Your task to perform on an android device: Open settings Image 0: 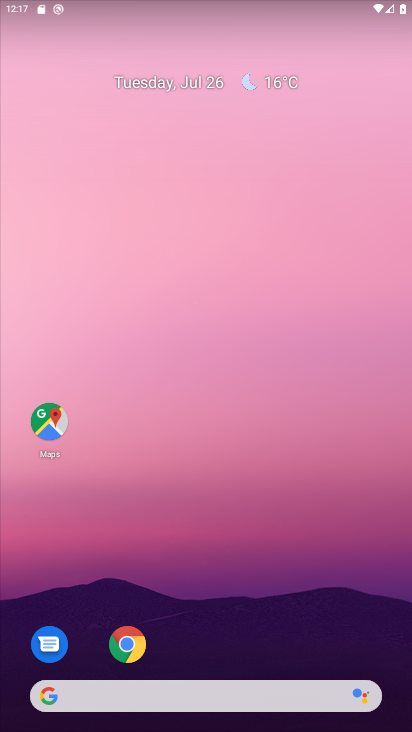
Step 0: drag from (292, 591) to (180, 12)
Your task to perform on an android device: Open settings Image 1: 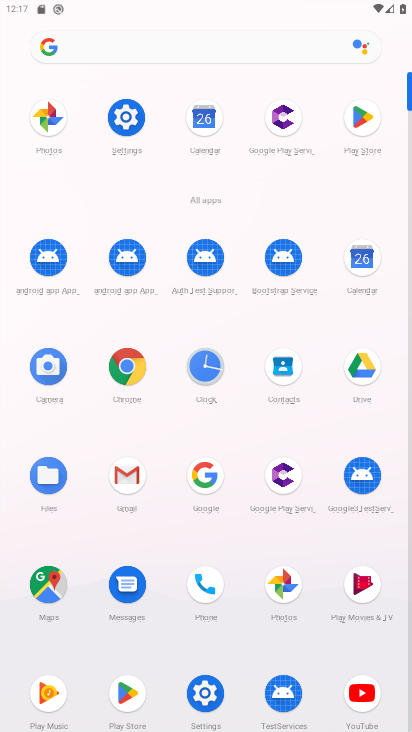
Step 1: click (127, 110)
Your task to perform on an android device: Open settings Image 2: 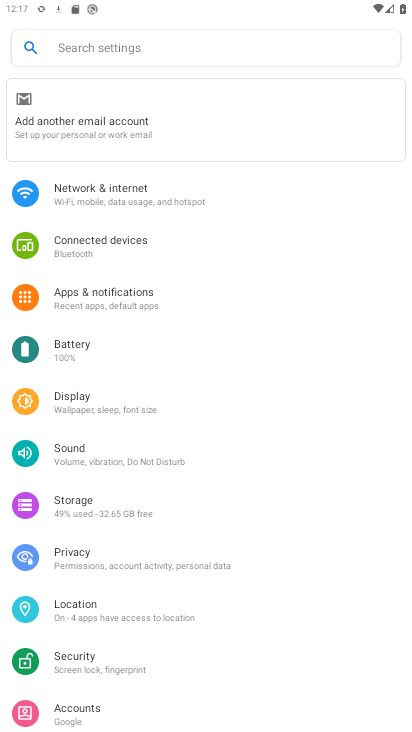
Step 2: task complete